Your task to perform on an android device: toggle notification dots Image 0: 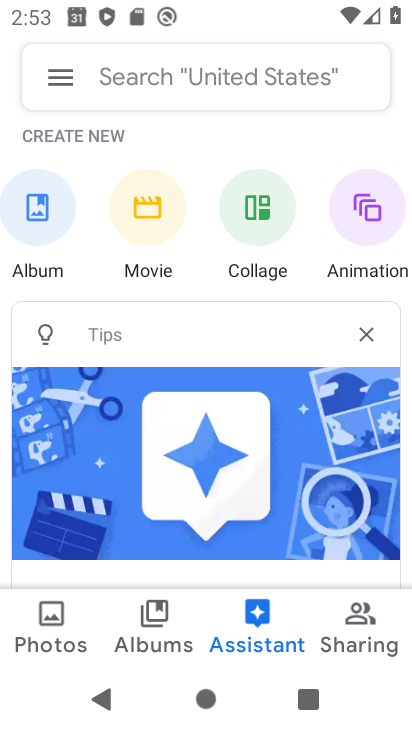
Step 0: press home button
Your task to perform on an android device: toggle notification dots Image 1: 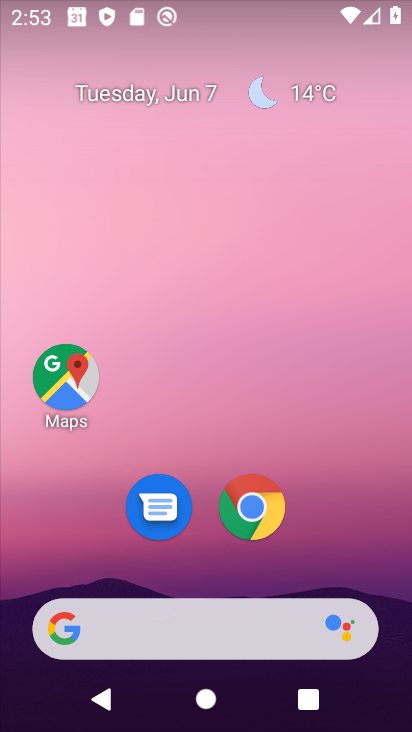
Step 1: drag from (357, 492) to (371, 142)
Your task to perform on an android device: toggle notification dots Image 2: 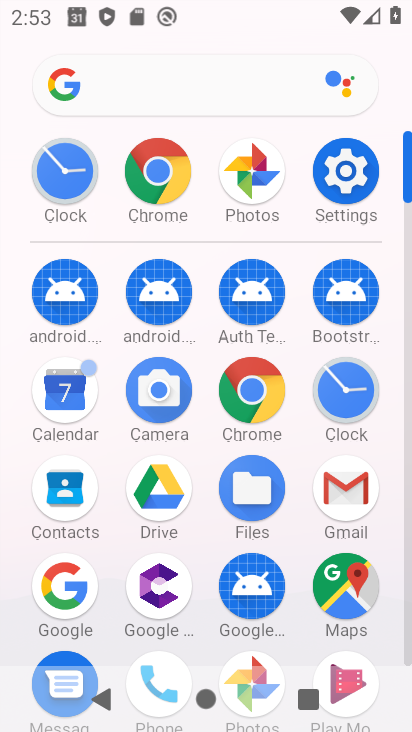
Step 2: click (339, 167)
Your task to perform on an android device: toggle notification dots Image 3: 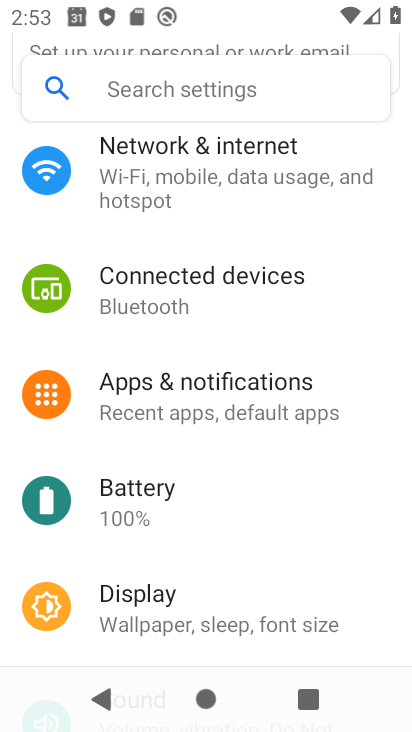
Step 3: drag from (254, 214) to (243, 619)
Your task to perform on an android device: toggle notification dots Image 4: 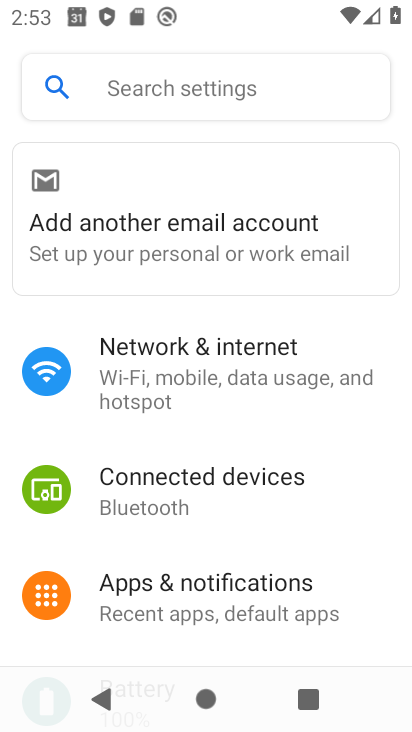
Step 4: click (234, 583)
Your task to perform on an android device: toggle notification dots Image 5: 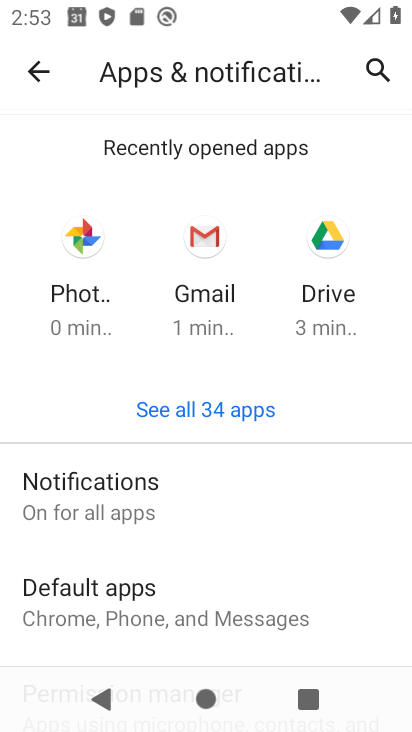
Step 5: click (134, 503)
Your task to perform on an android device: toggle notification dots Image 6: 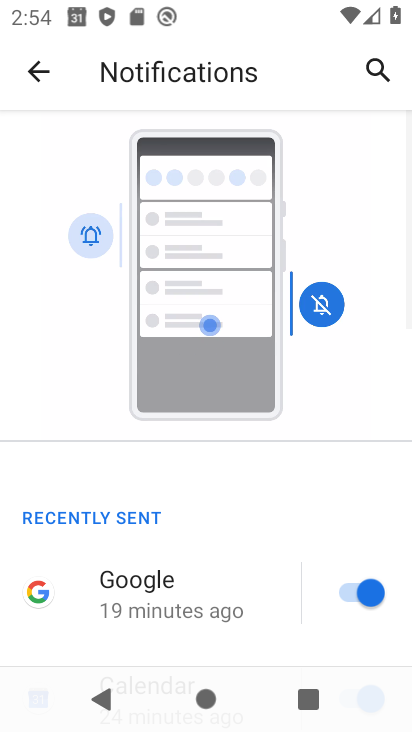
Step 6: drag from (217, 534) to (199, 81)
Your task to perform on an android device: toggle notification dots Image 7: 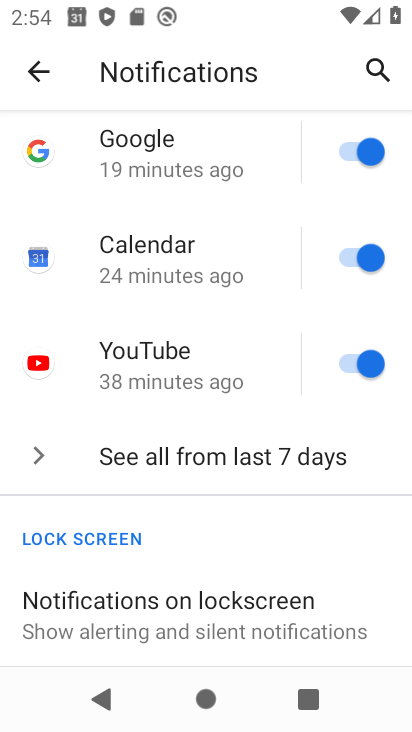
Step 7: drag from (182, 546) to (229, 157)
Your task to perform on an android device: toggle notification dots Image 8: 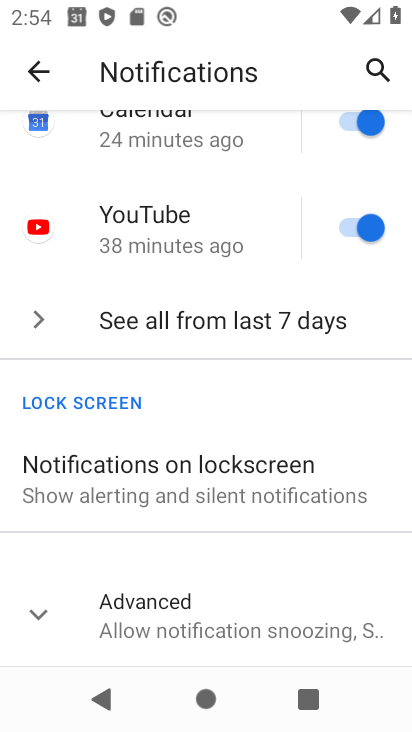
Step 8: drag from (172, 509) to (223, 179)
Your task to perform on an android device: toggle notification dots Image 9: 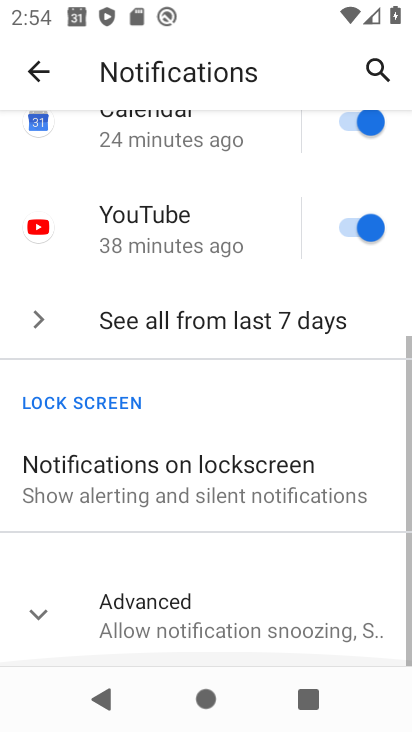
Step 9: click (141, 595)
Your task to perform on an android device: toggle notification dots Image 10: 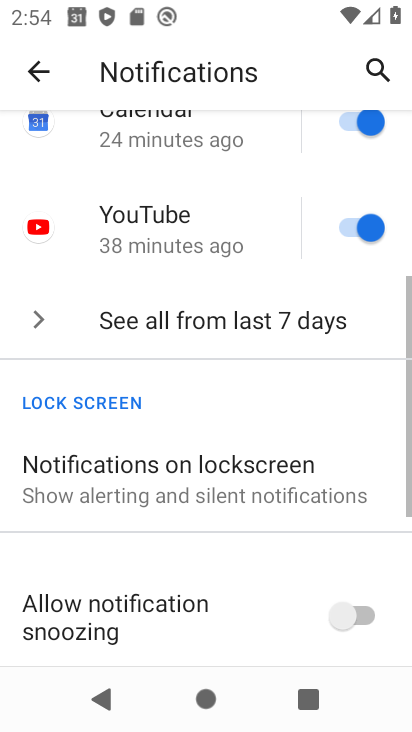
Step 10: drag from (209, 566) to (187, 120)
Your task to perform on an android device: toggle notification dots Image 11: 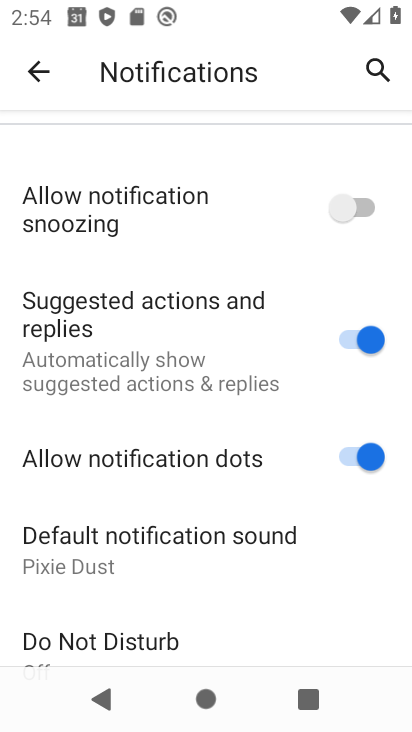
Step 11: click (358, 457)
Your task to perform on an android device: toggle notification dots Image 12: 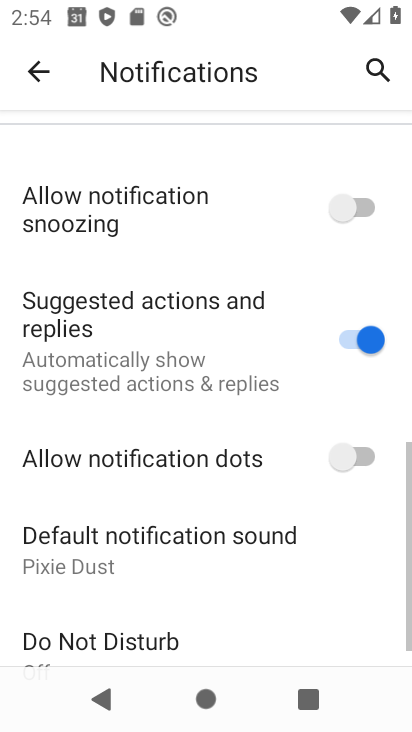
Step 12: task complete